Your task to perform on an android device: Clear all items from cart on bestbuy.com. Add apple airpods pro to the cart on bestbuy.com Image 0: 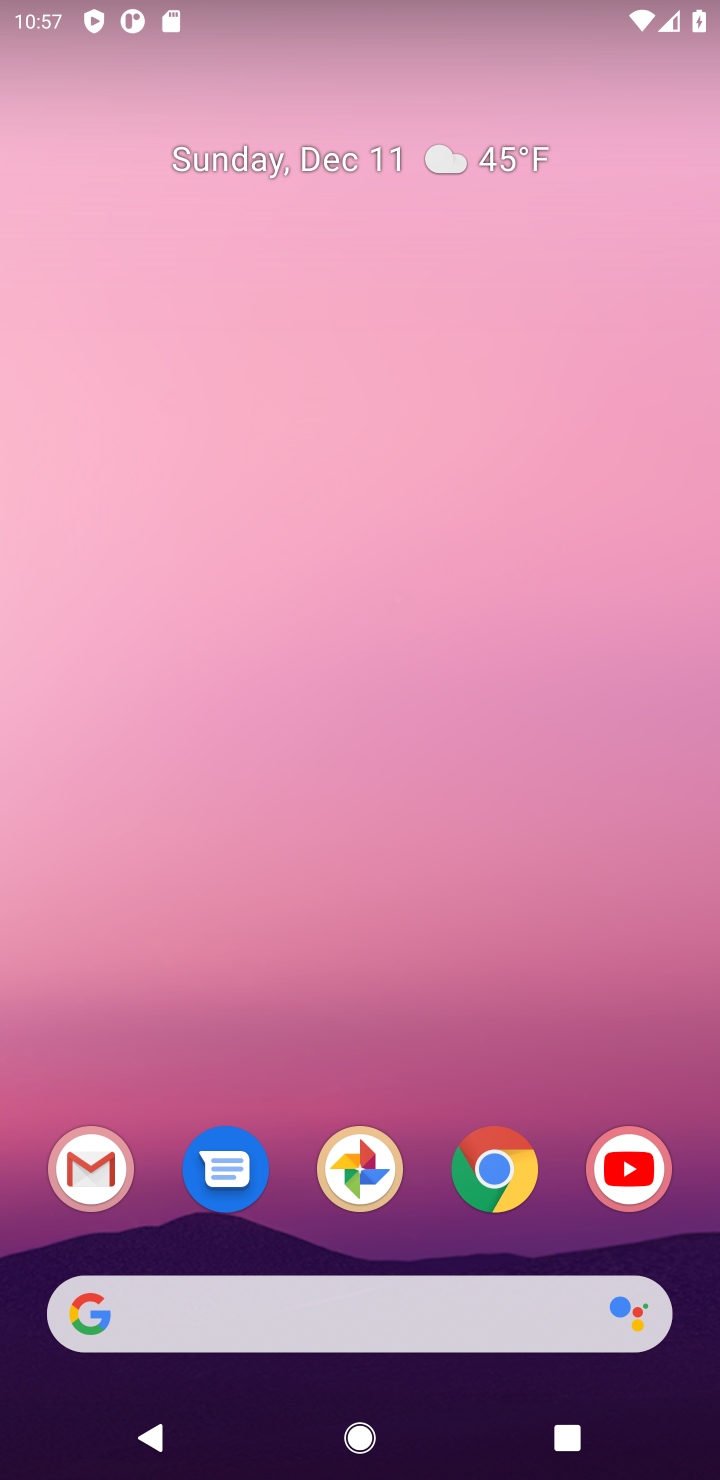
Step 0: click (491, 1182)
Your task to perform on an android device: Clear all items from cart on bestbuy.com. Add apple airpods pro to the cart on bestbuy.com Image 1: 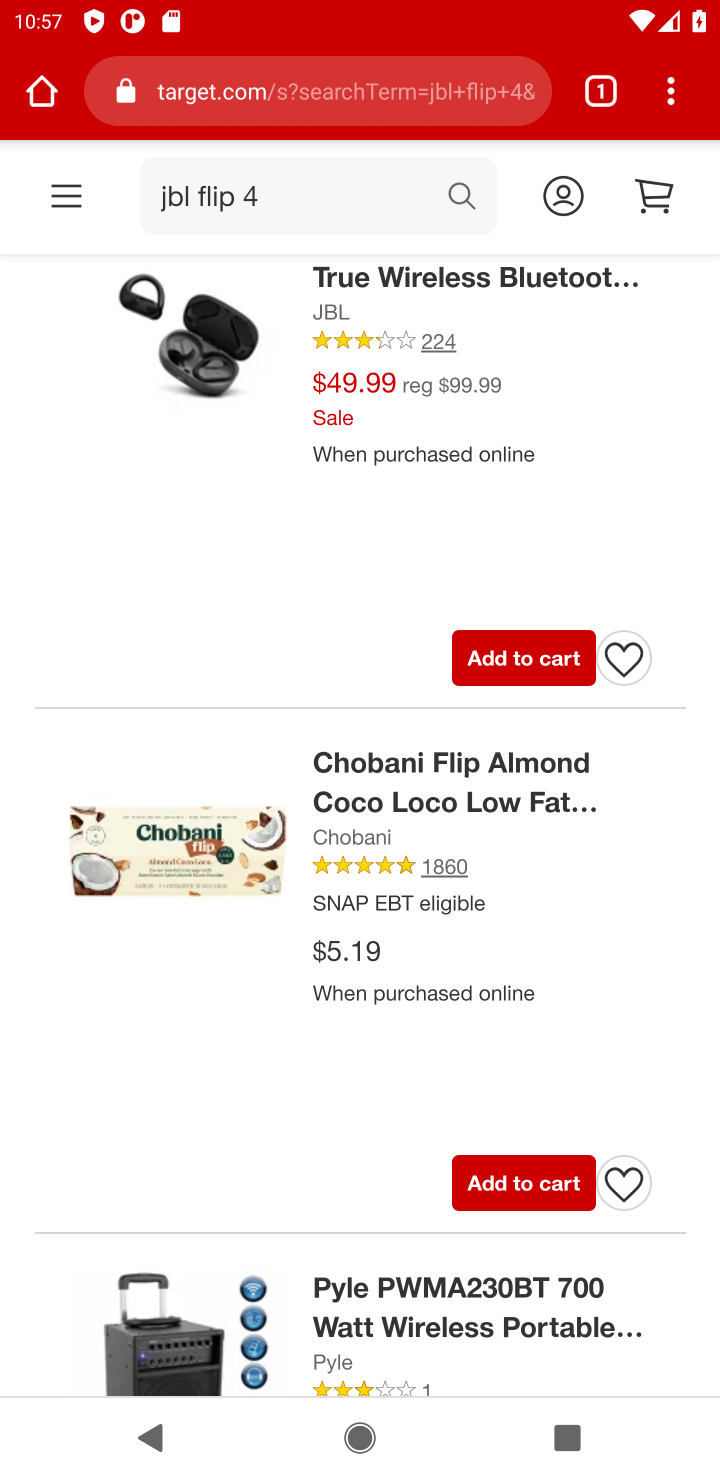
Step 1: click (226, 83)
Your task to perform on an android device: Clear all items from cart on bestbuy.com. Add apple airpods pro to the cart on bestbuy.com Image 2: 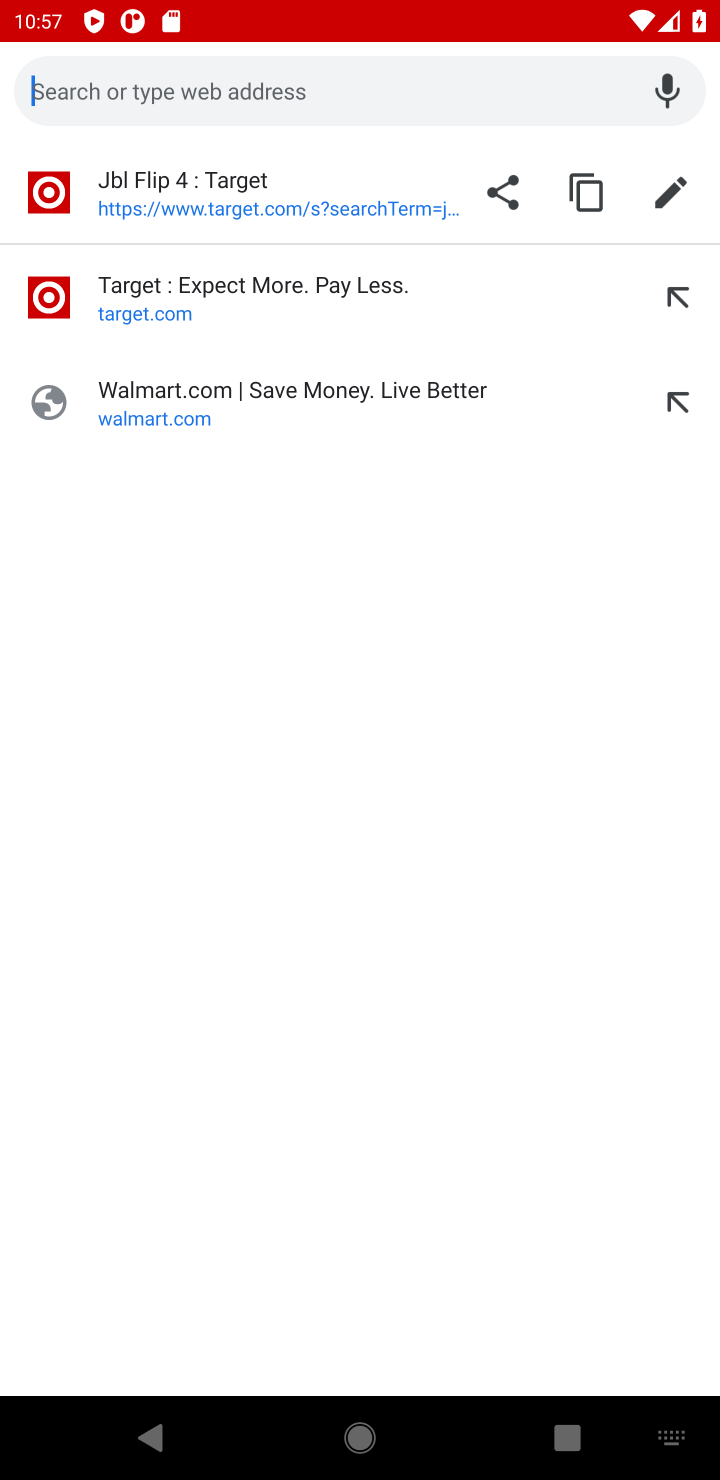
Step 2: type "bestbuy.com"
Your task to perform on an android device: Clear all items from cart on bestbuy.com. Add apple airpods pro to the cart on bestbuy.com Image 3: 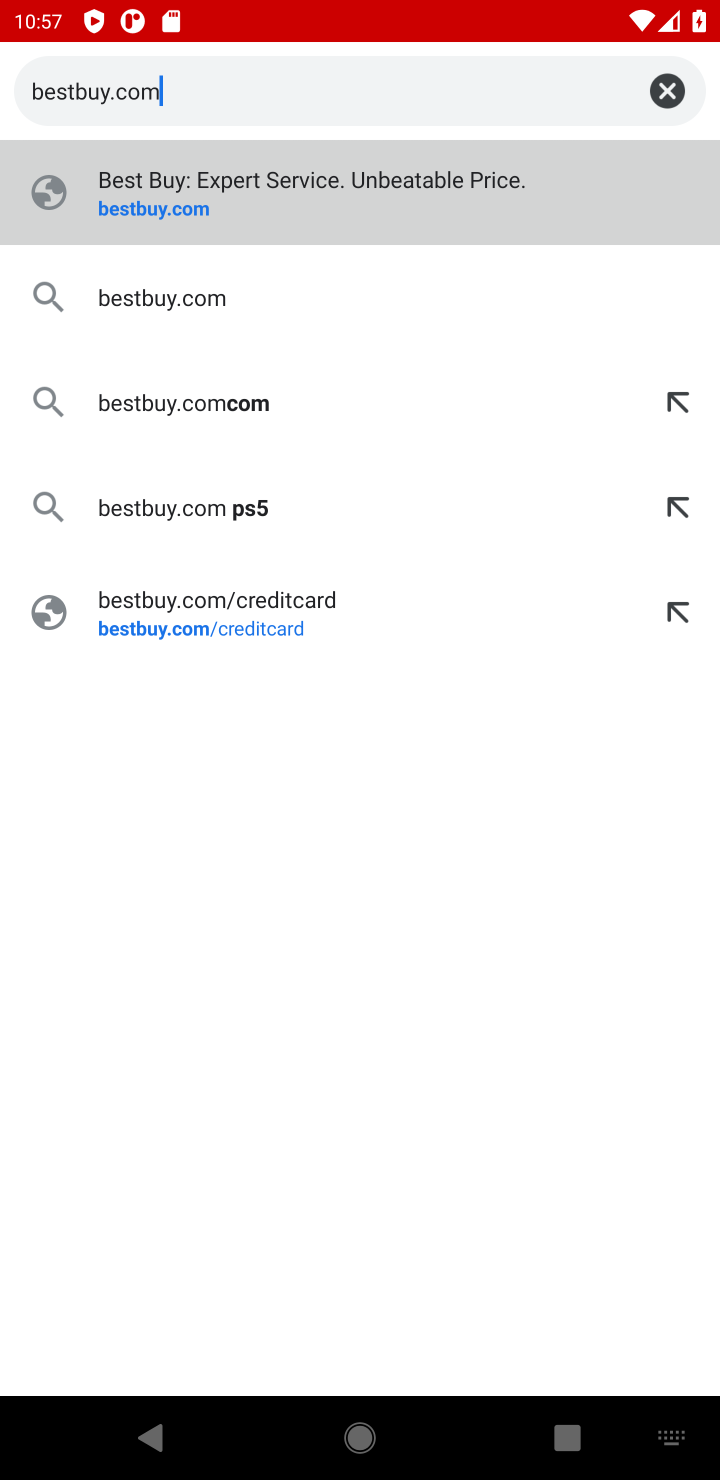
Step 3: click (132, 213)
Your task to perform on an android device: Clear all items from cart on bestbuy.com. Add apple airpods pro to the cart on bestbuy.com Image 4: 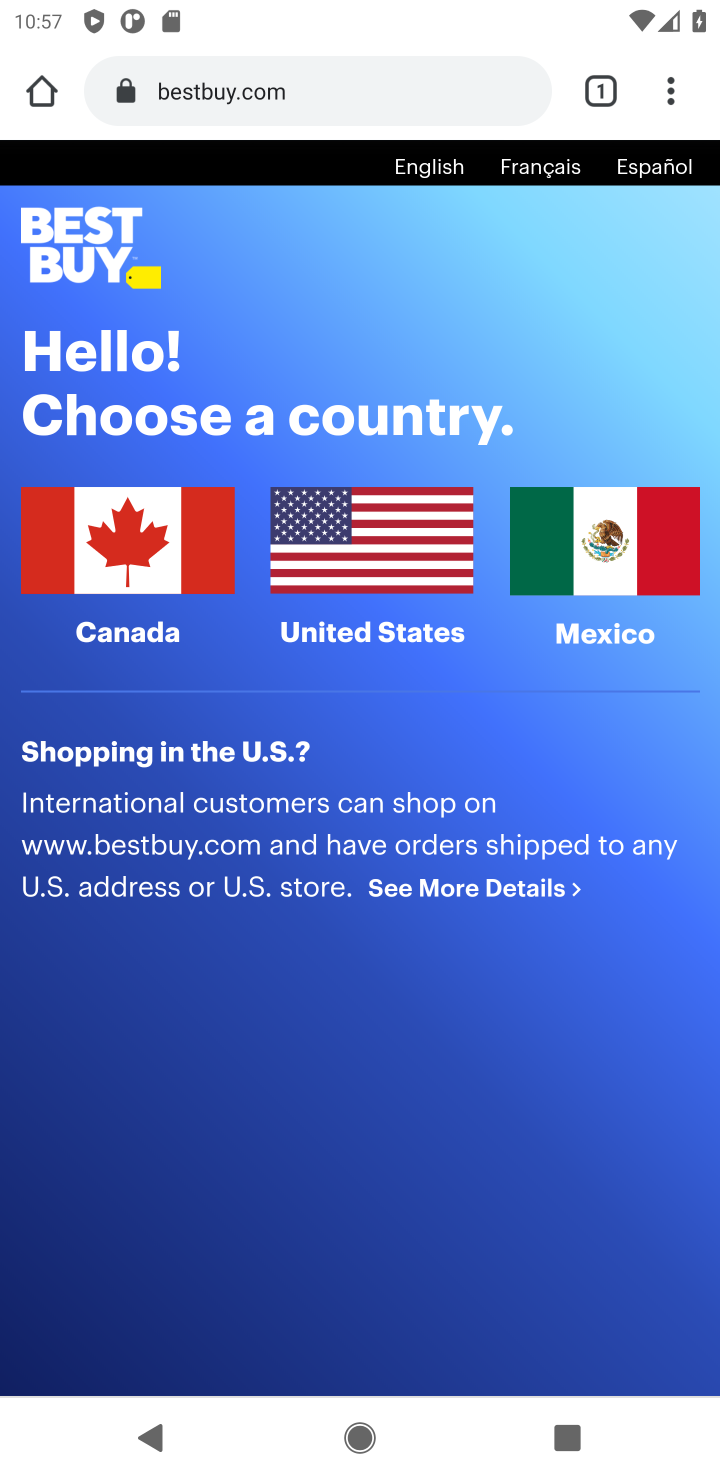
Step 4: click (356, 544)
Your task to perform on an android device: Clear all items from cart on bestbuy.com. Add apple airpods pro to the cart on bestbuy.com Image 5: 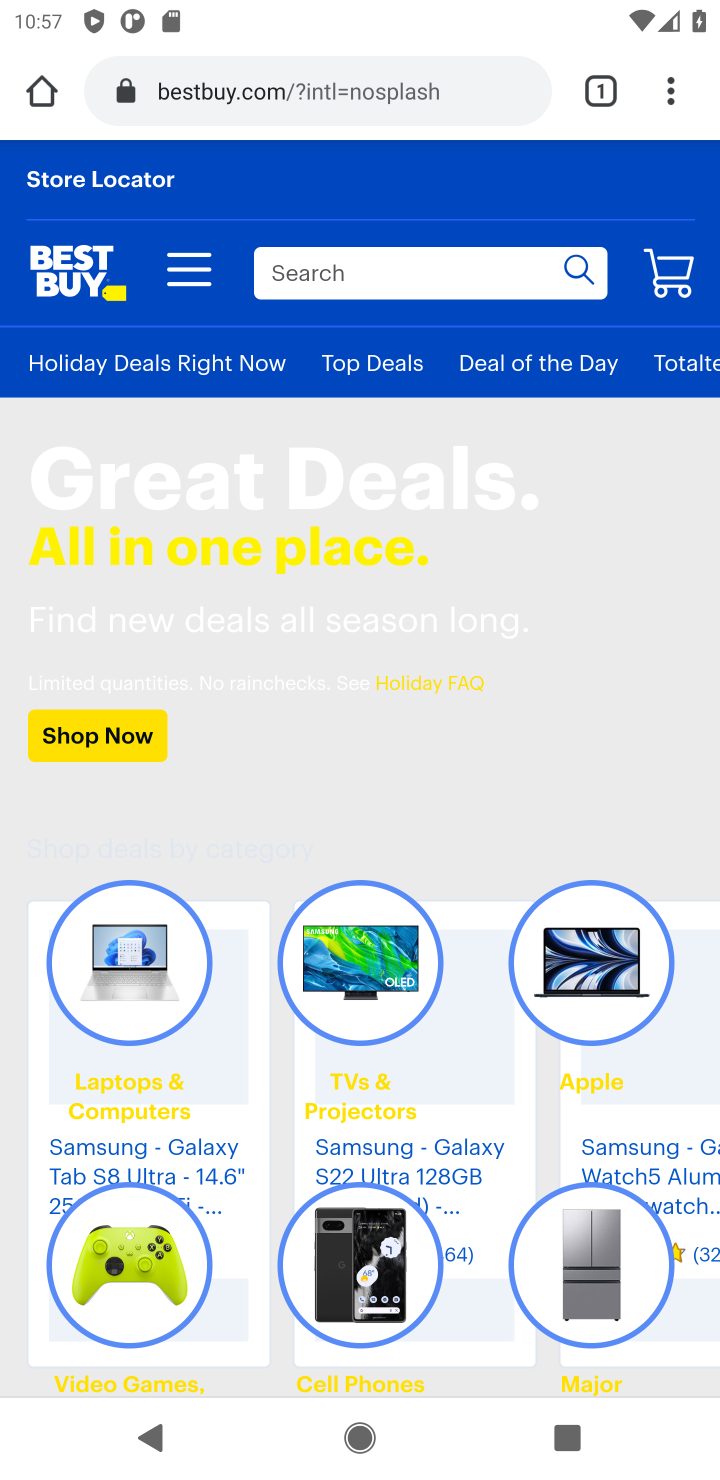
Step 5: click (685, 273)
Your task to perform on an android device: Clear all items from cart on bestbuy.com. Add apple airpods pro to the cart on bestbuy.com Image 6: 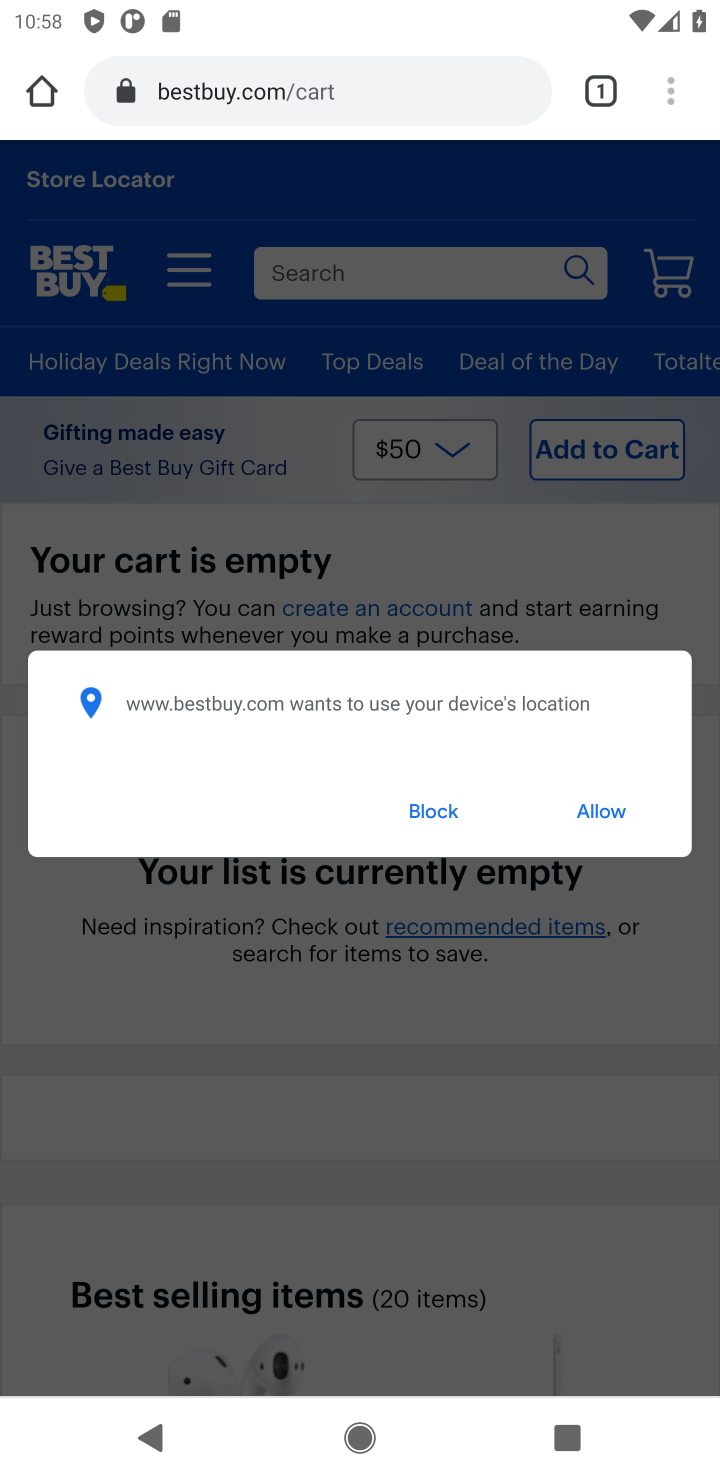
Step 6: click (436, 814)
Your task to perform on an android device: Clear all items from cart on bestbuy.com. Add apple airpods pro to the cart on bestbuy.com Image 7: 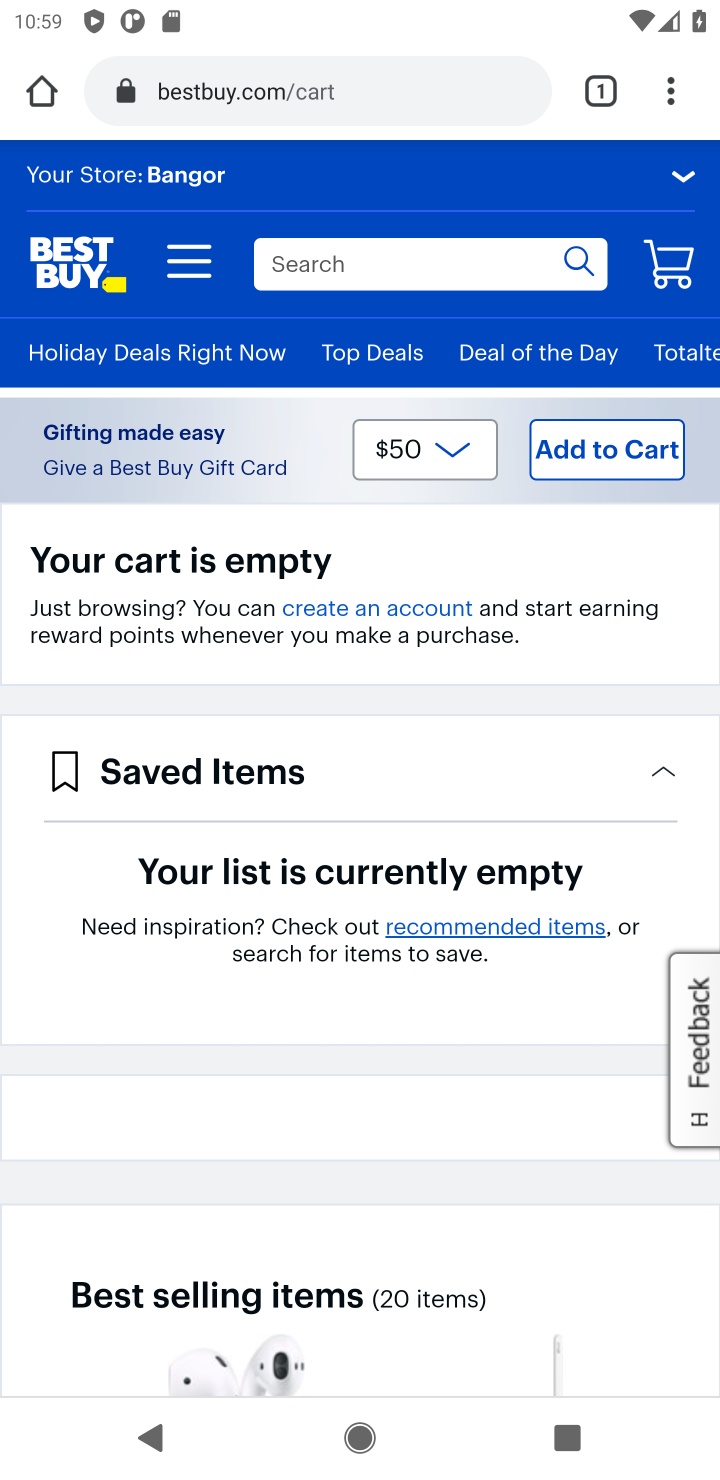
Step 7: click (343, 266)
Your task to perform on an android device: Clear all items from cart on bestbuy.com. Add apple airpods pro to the cart on bestbuy.com Image 8: 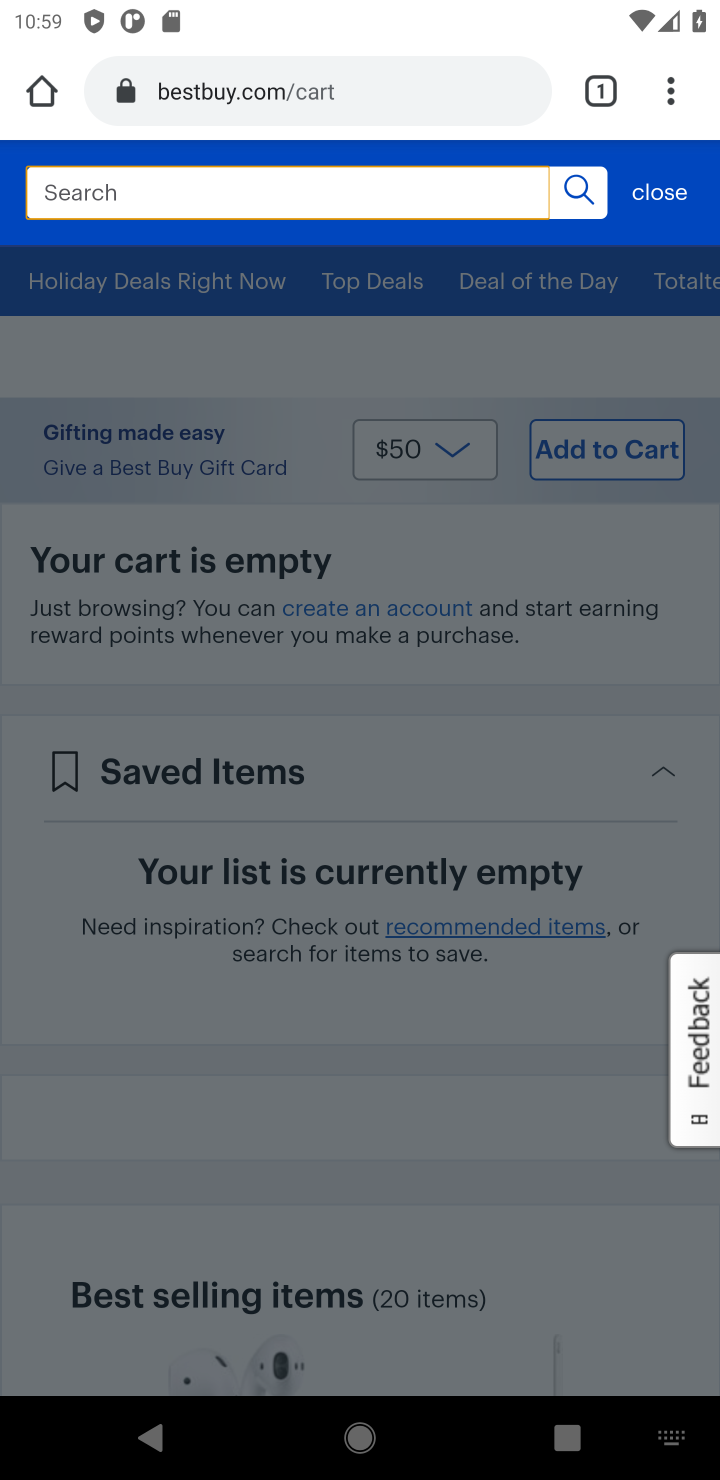
Step 8: type "apple airpods pro"
Your task to perform on an android device: Clear all items from cart on bestbuy.com. Add apple airpods pro to the cart on bestbuy.com Image 9: 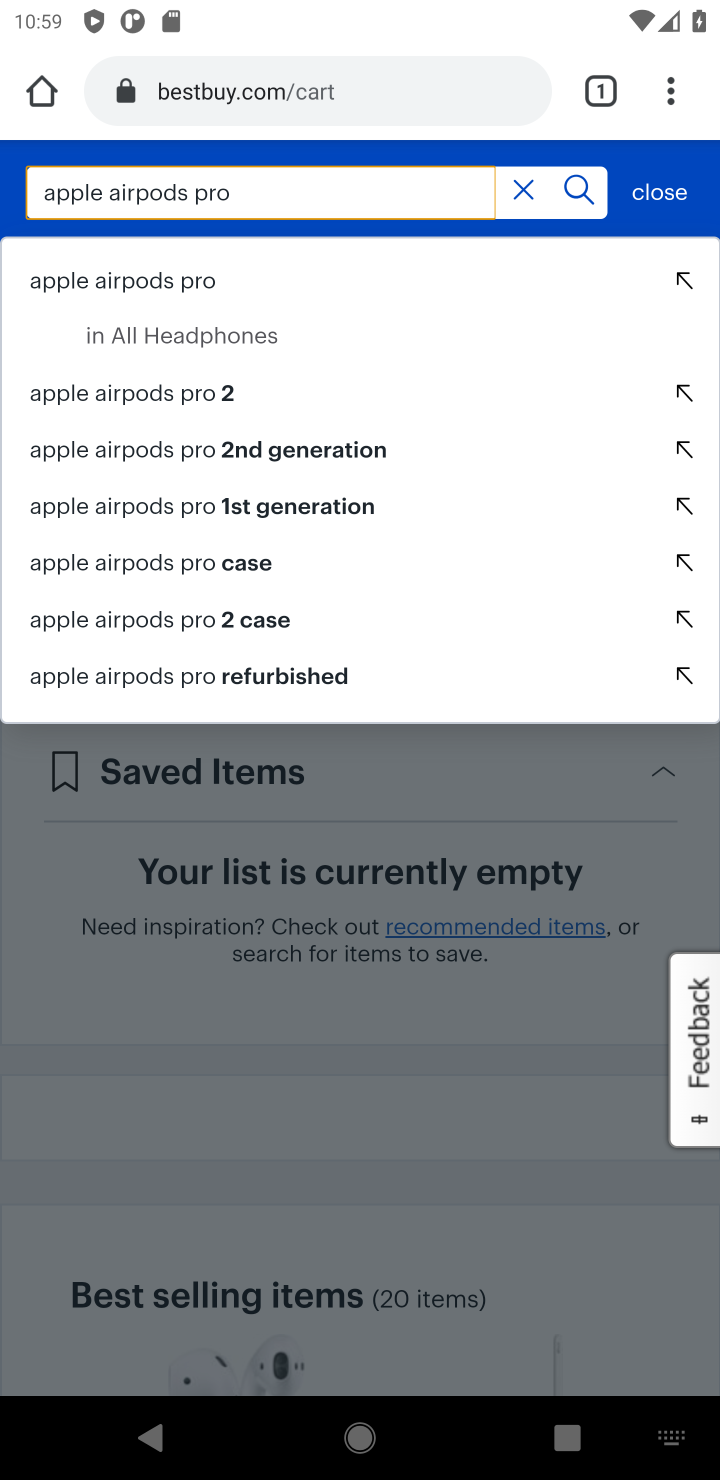
Step 9: click (181, 282)
Your task to perform on an android device: Clear all items from cart on bestbuy.com. Add apple airpods pro to the cart on bestbuy.com Image 10: 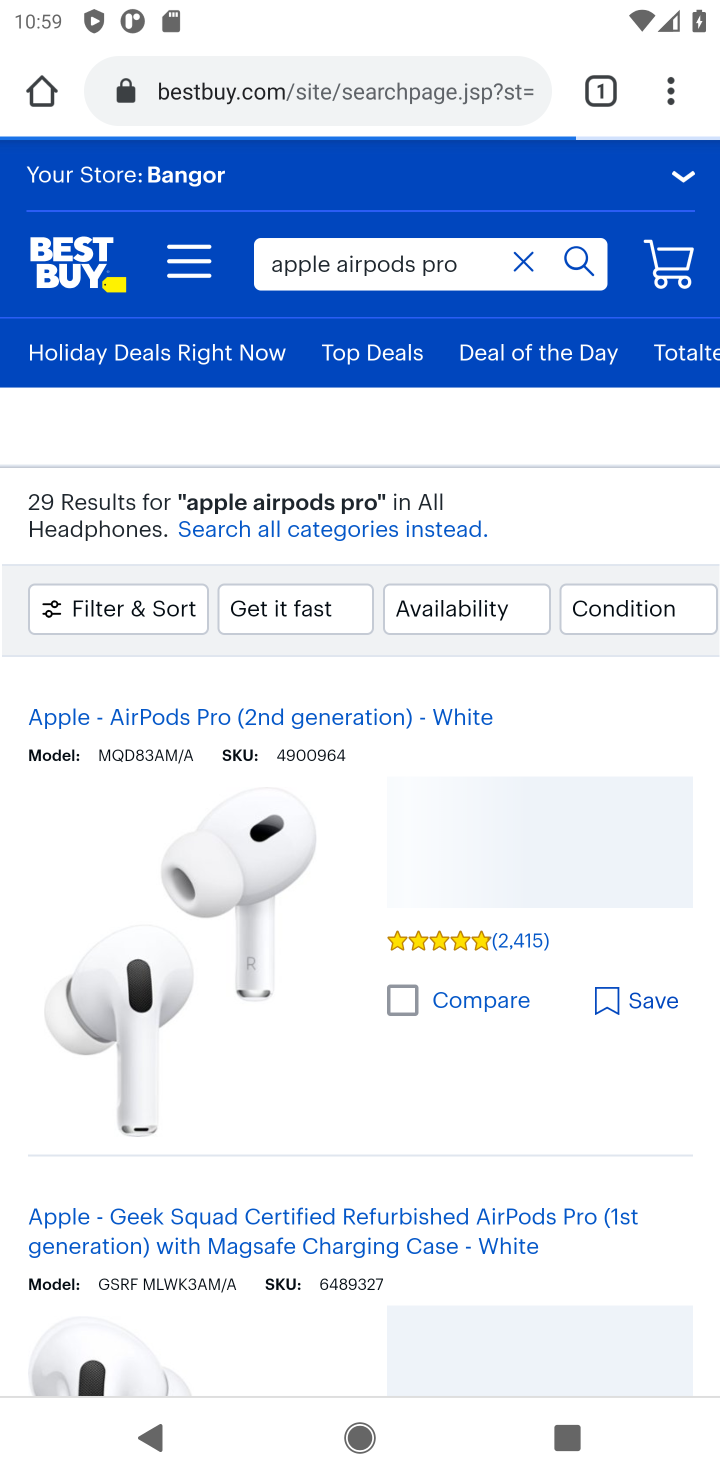
Step 10: drag from (202, 856) to (222, 602)
Your task to perform on an android device: Clear all items from cart on bestbuy.com. Add apple airpods pro to the cart on bestbuy.com Image 11: 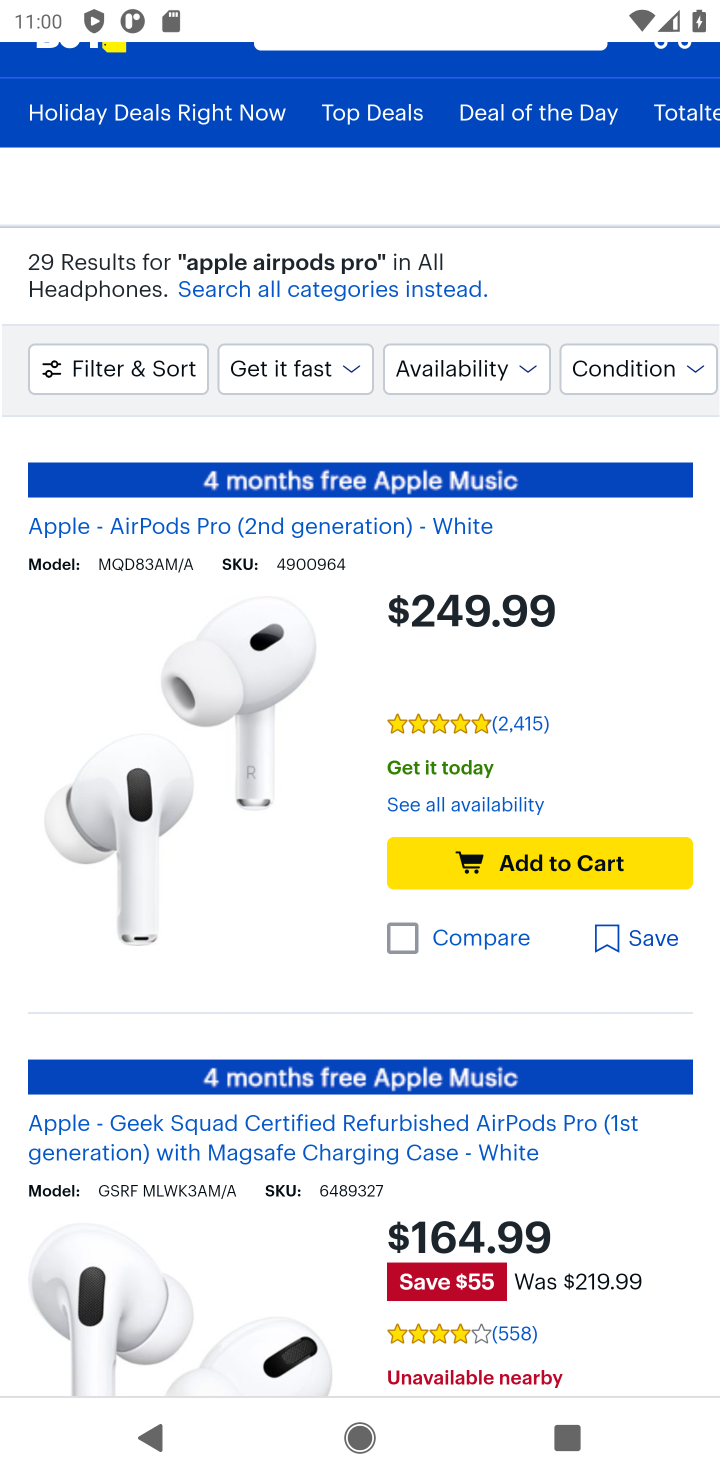
Step 11: click (432, 795)
Your task to perform on an android device: Clear all items from cart on bestbuy.com. Add apple airpods pro to the cart on bestbuy.com Image 12: 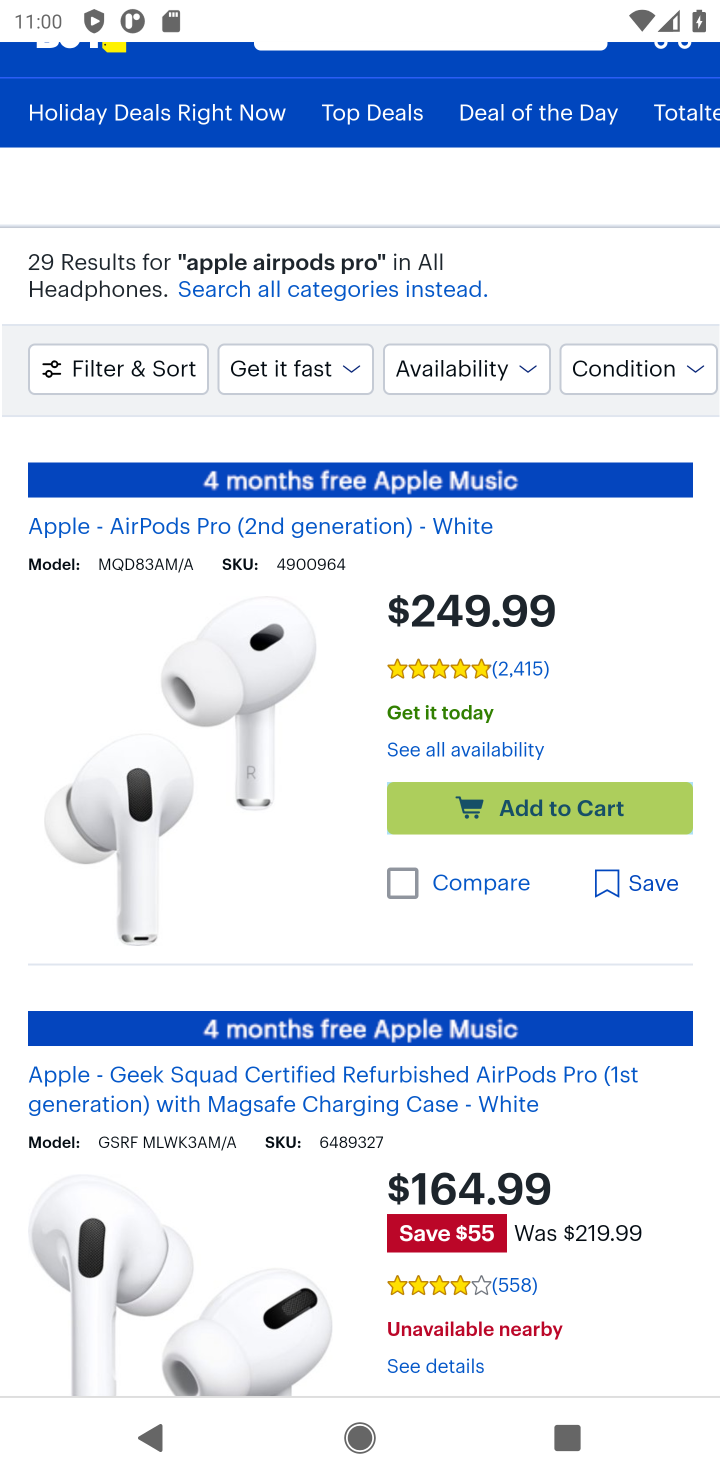
Step 12: click (432, 862)
Your task to perform on an android device: Clear all items from cart on bestbuy.com. Add apple airpods pro to the cart on bestbuy.com Image 13: 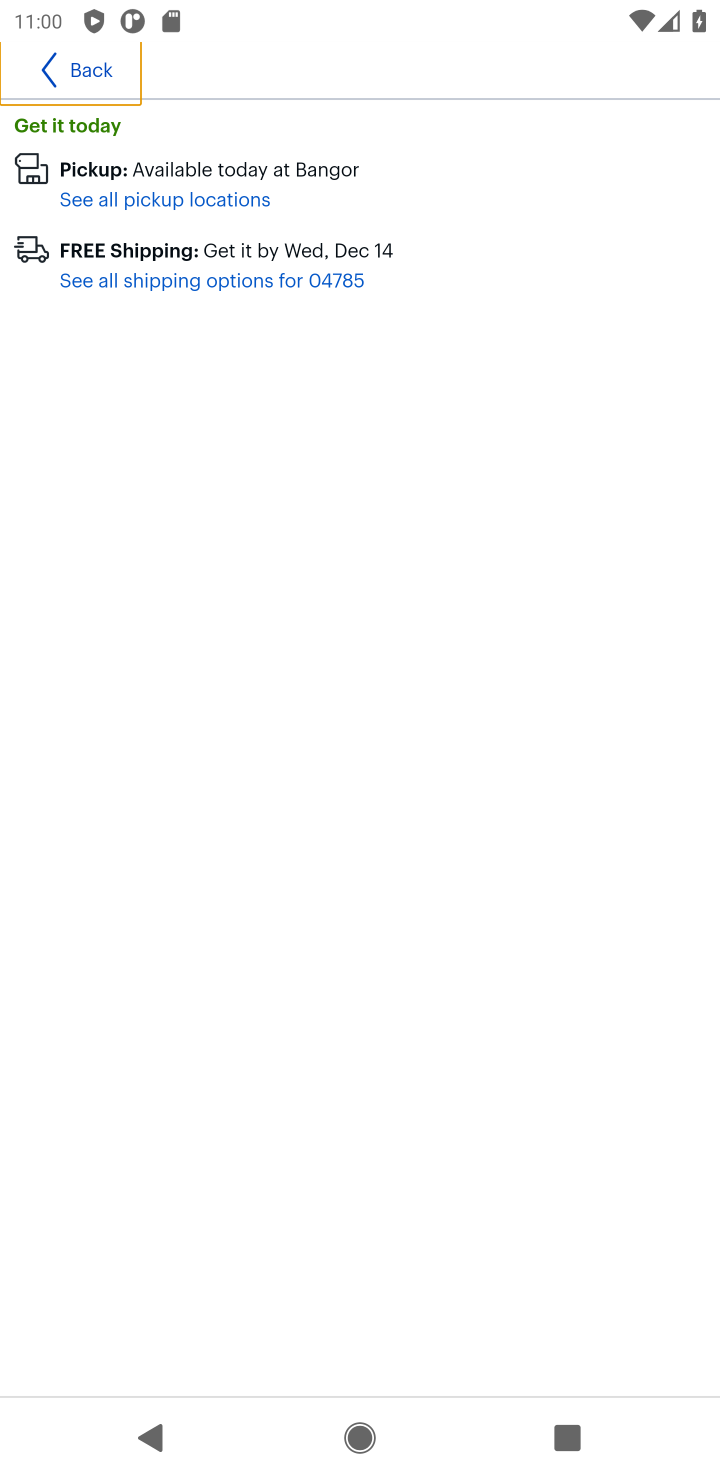
Step 13: click (75, 80)
Your task to perform on an android device: Clear all items from cart on bestbuy.com. Add apple airpods pro to the cart on bestbuy.com Image 14: 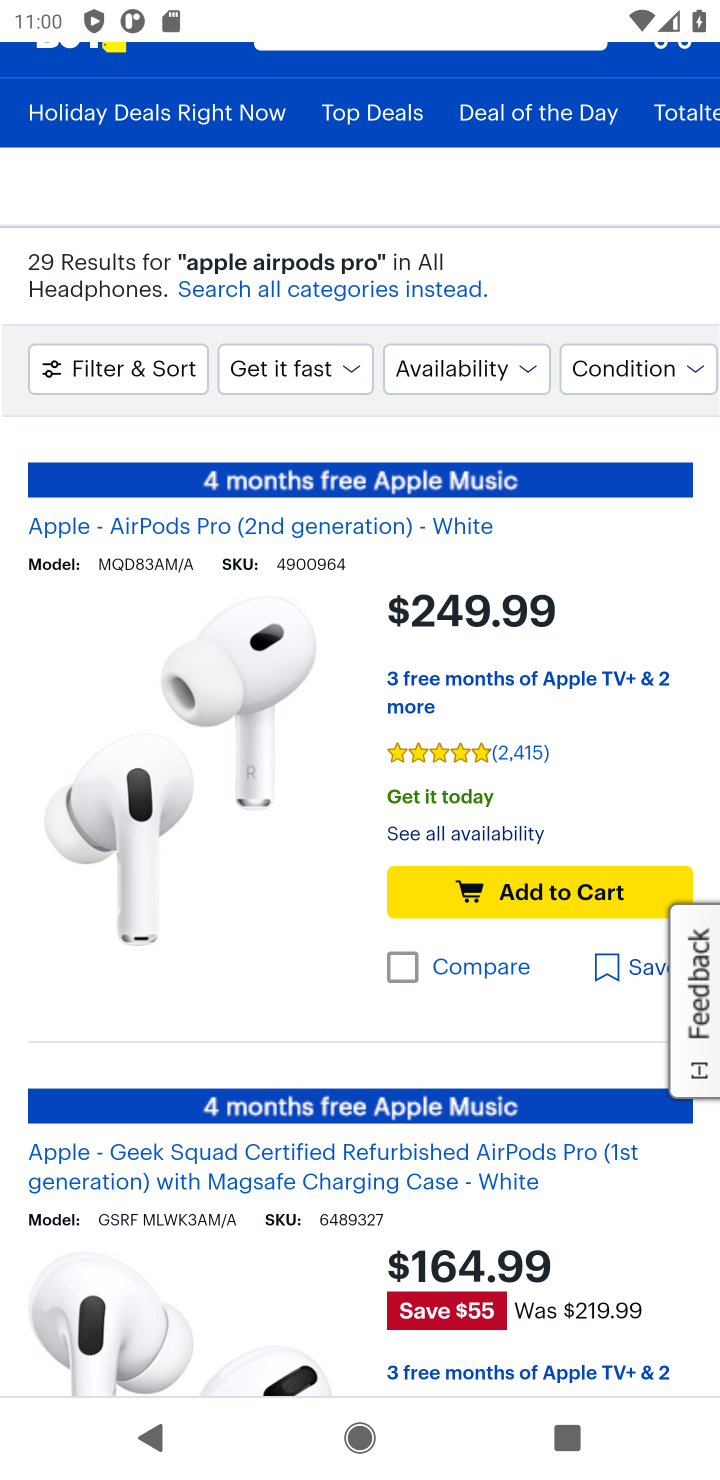
Step 14: click (499, 885)
Your task to perform on an android device: Clear all items from cart on bestbuy.com. Add apple airpods pro to the cart on bestbuy.com Image 15: 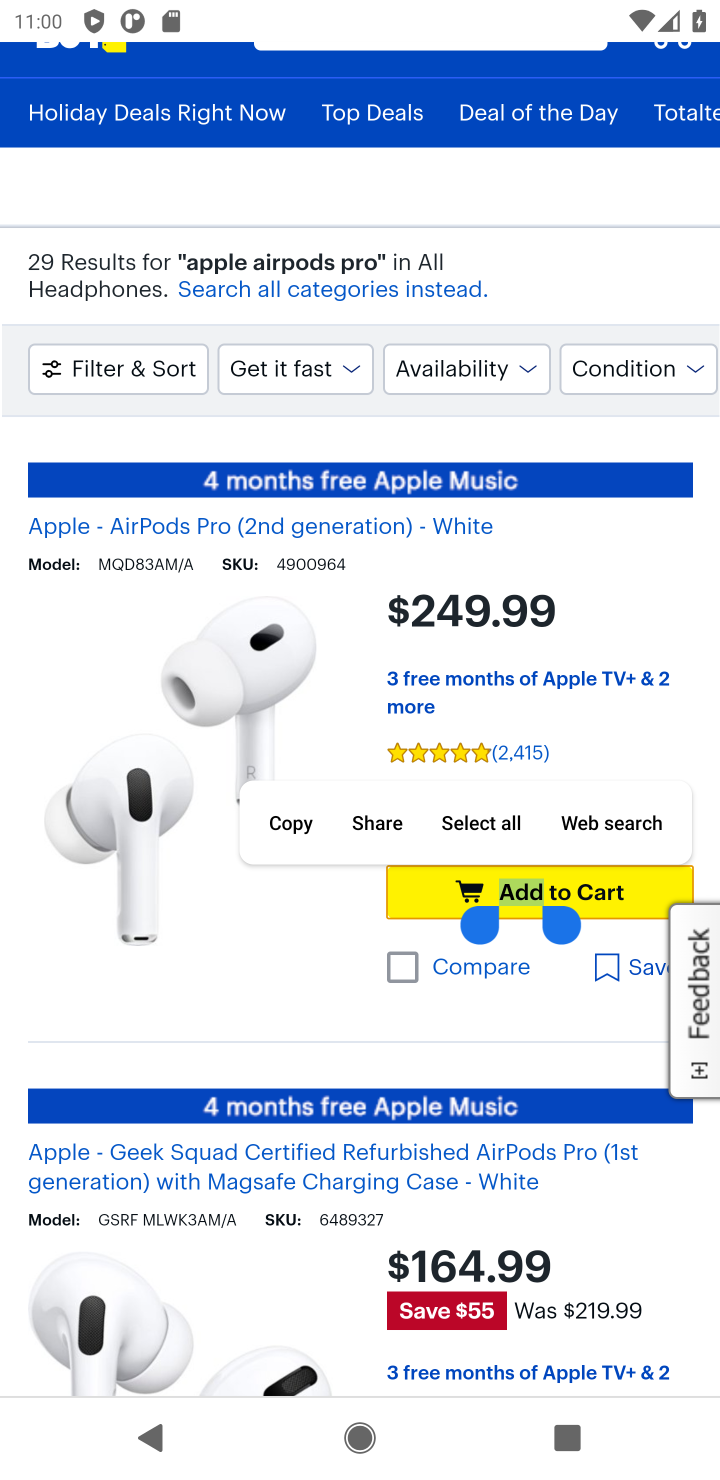
Step 15: click (579, 896)
Your task to perform on an android device: Clear all items from cart on bestbuy.com. Add apple airpods pro to the cart on bestbuy.com Image 16: 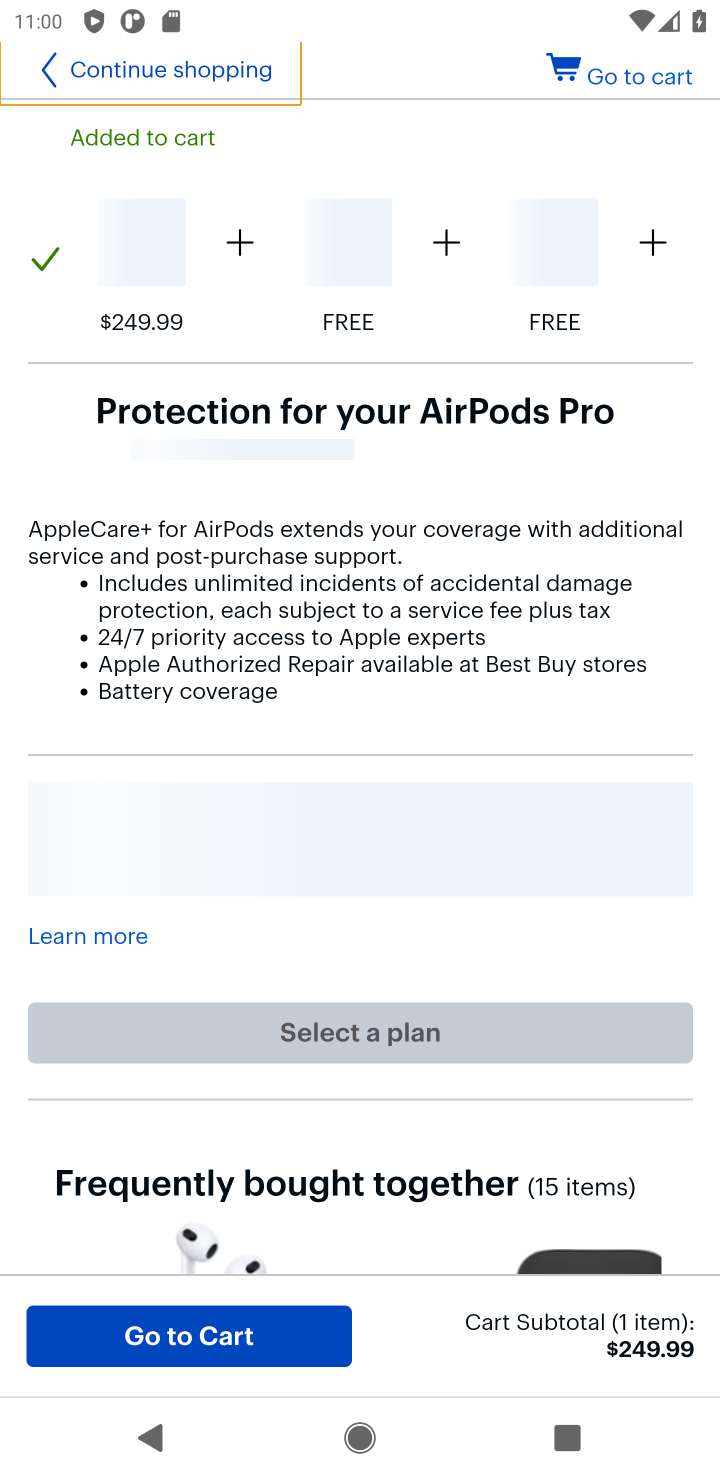
Step 16: task complete